Your task to perform on an android device: change text size in settings app Image 0: 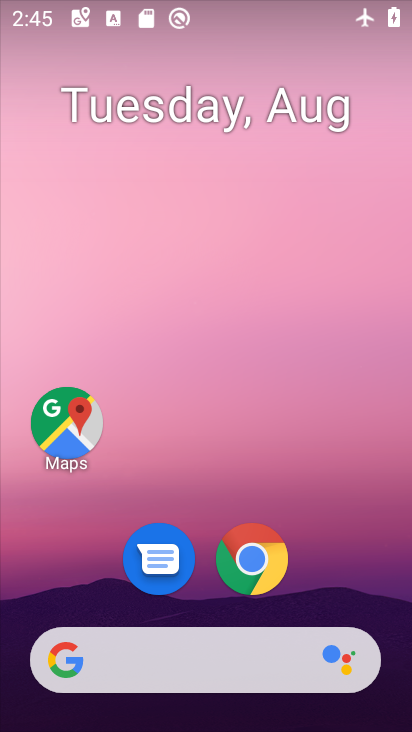
Step 0: drag from (205, 490) to (204, 127)
Your task to perform on an android device: change text size in settings app Image 1: 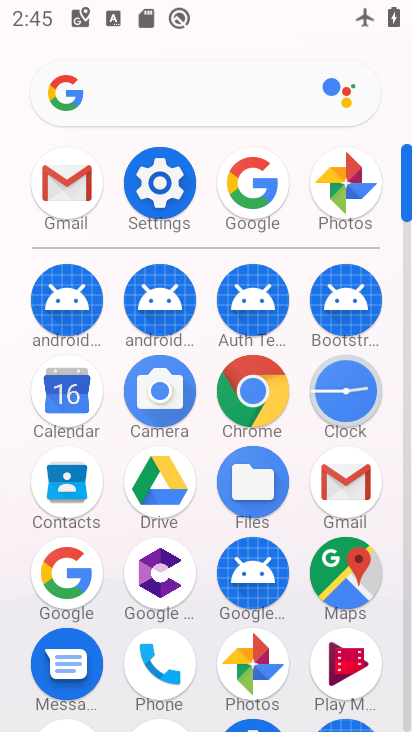
Step 1: click (166, 192)
Your task to perform on an android device: change text size in settings app Image 2: 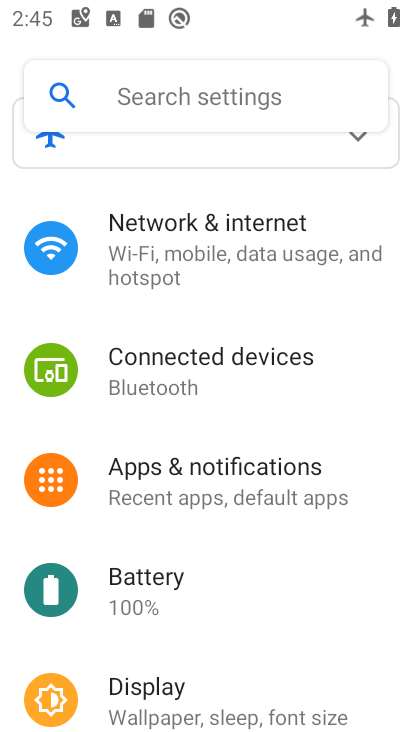
Step 2: click (215, 683)
Your task to perform on an android device: change text size in settings app Image 3: 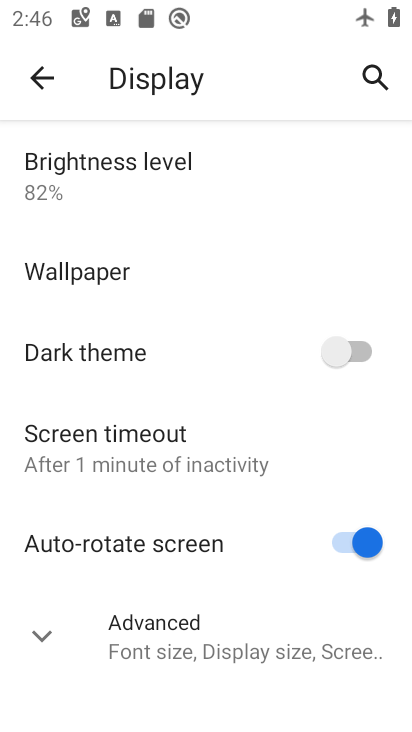
Step 3: click (154, 626)
Your task to perform on an android device: change text size in settings app Image 4: 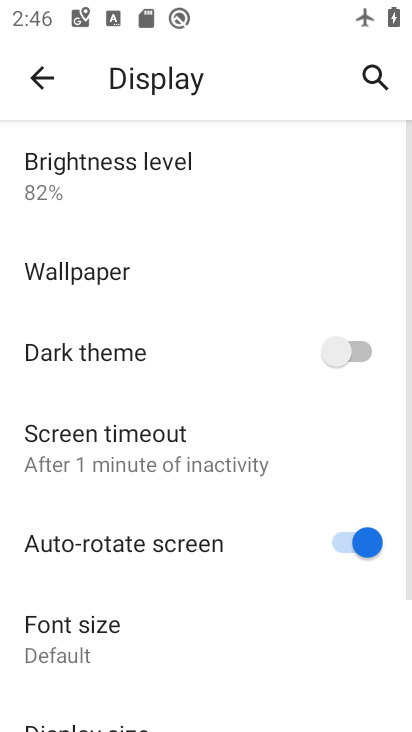
Step 4: drag from (154, 641) to (147, 403)
Your task to perform on an android device: change text size in settings app Image 5: 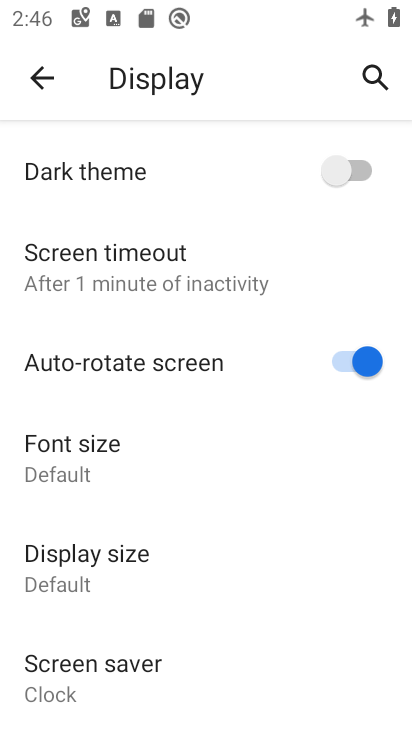
Step 5: click (120, 436)
Your task to perform on an android device: change text size in settings app Image 6: 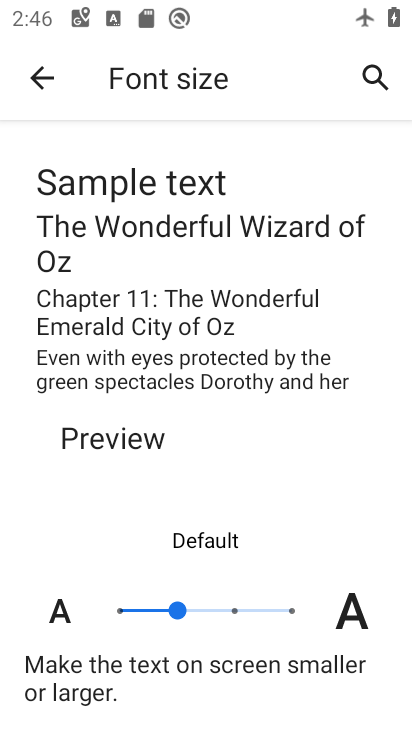
Step 6: click (285, 624)
Your task to perform on an android device: change text size in settings app Image 7: 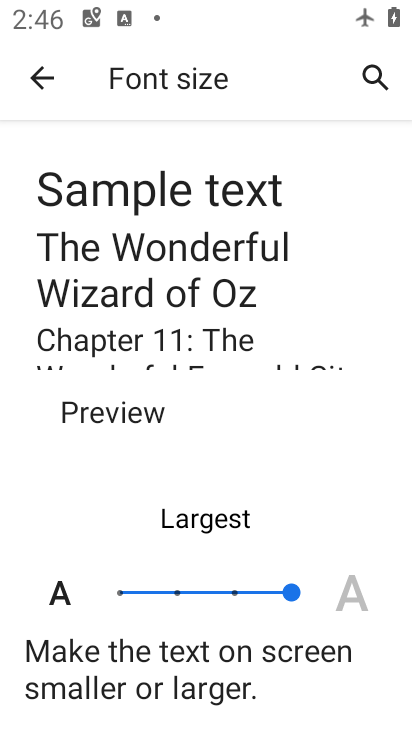
Step 7: task complete